Your task to perform on an android device: delete location history Image 0: 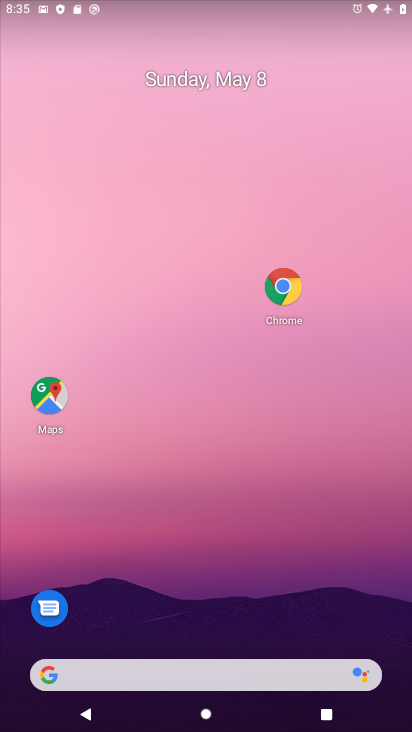
Step 0: drag from (165, 673) to (305, 47)
Your task to perform on an android device: delete location history Image 1: 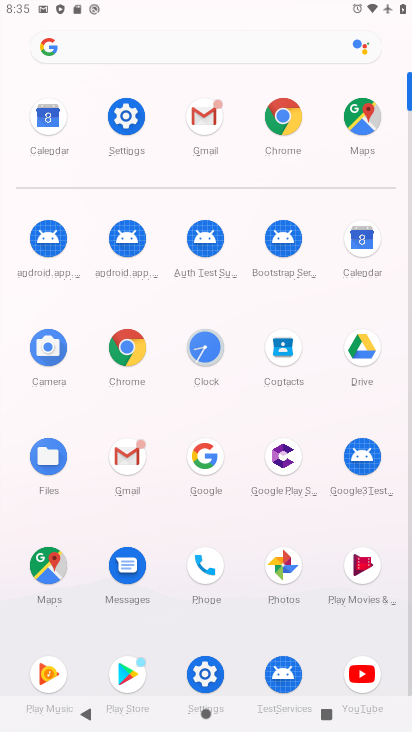
Step 1: click (355, 123)
Your task to perform on an android device: delete location history Image 2: 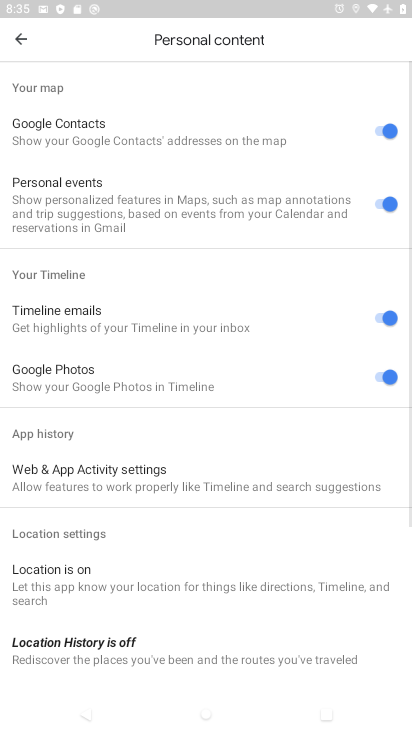
Step 2: click (24, 47)
Your task to perform on an android device: delete location history Image 3: 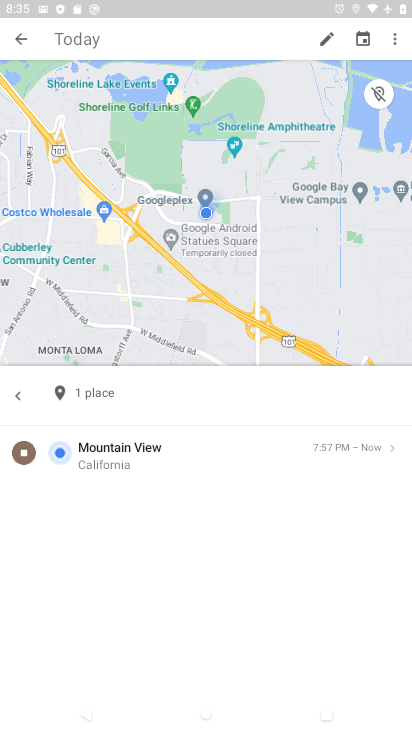
Step 3: click (396, 39)
Your task to perform on an android device: delete location history Image 4: 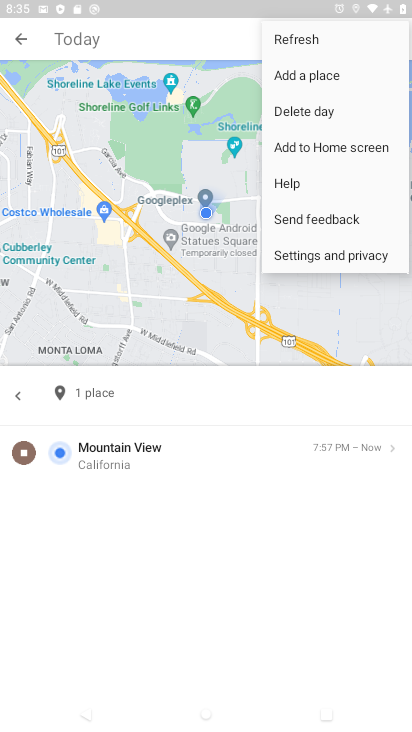
Step 4: click (321, 259)
Your task to perform on an android device: delete location history Image 5: 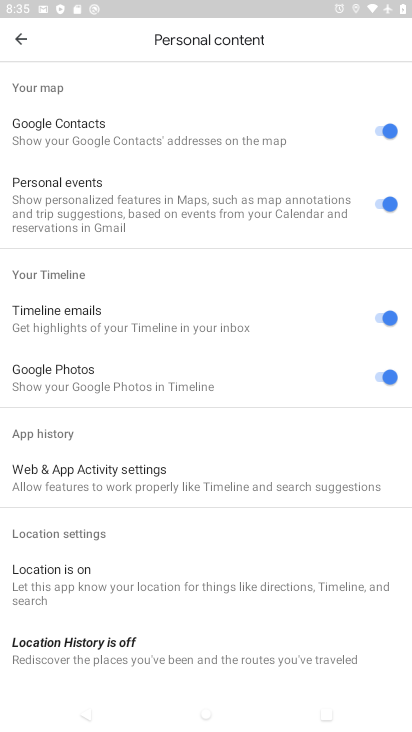
Step 5: drag from (140, 627) to (211, 306)
Your task to perform on an android device: delete location history Image 6: 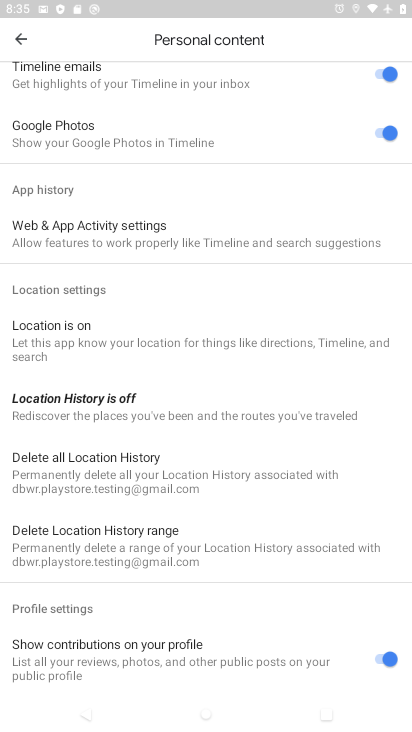
Step 6: click (132, 473)
Your task to perform on an android device: delete location history Image 7: 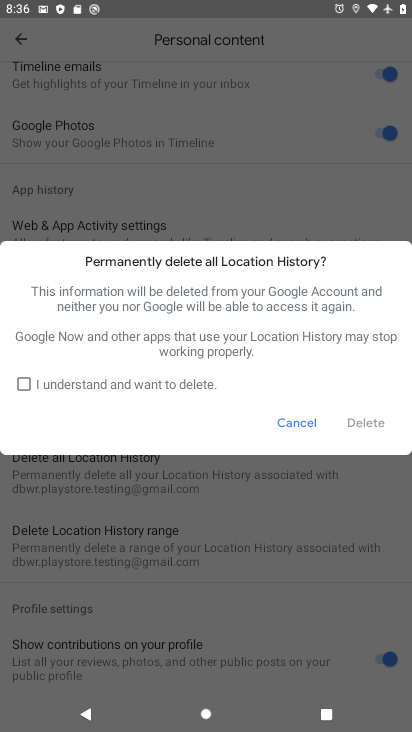
Step 7: click (24, 377)
Your task to perform on an android device: delete location history Image 8: 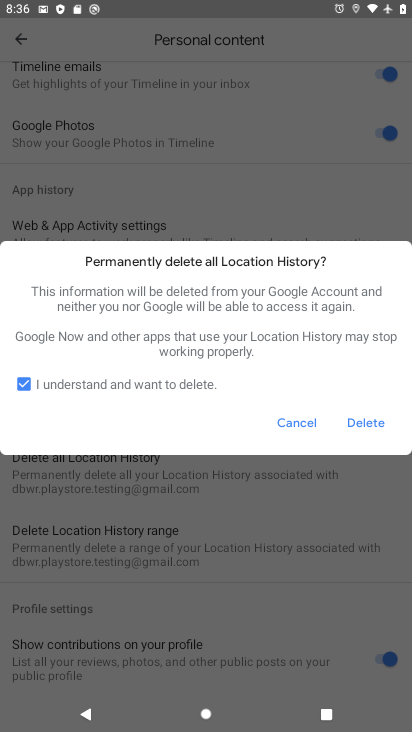
Step 8: click (373, 422)
Your task to perform on an android device: delete location history Image 9: 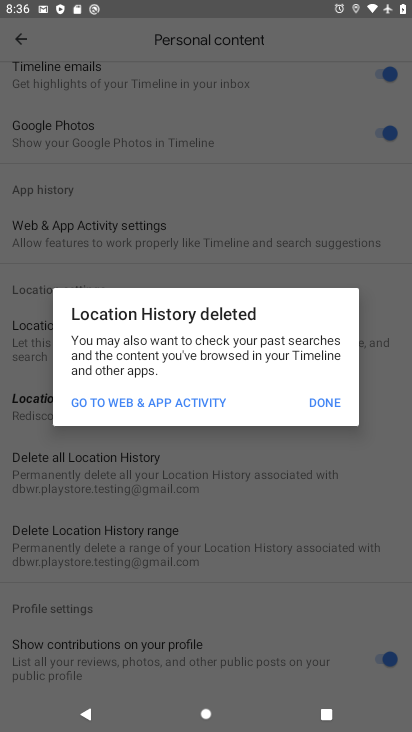
Step 9: click (328, 408)
Your task to perform on an android device: delete location history Image 10: 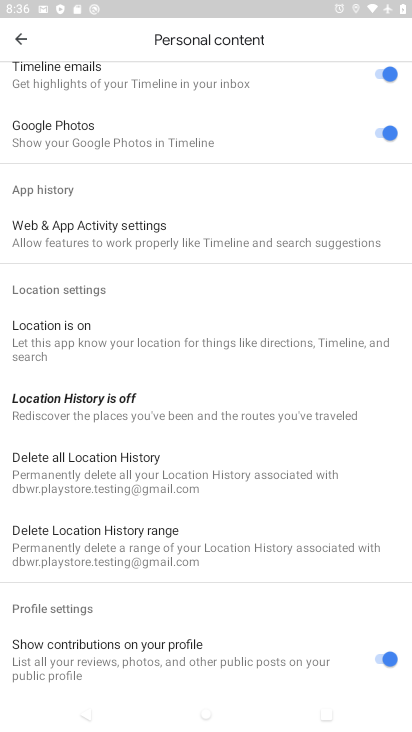
Step 10: task complete